Your task to perform on an android device: turn on notifications settings in the gmail app Image 0: 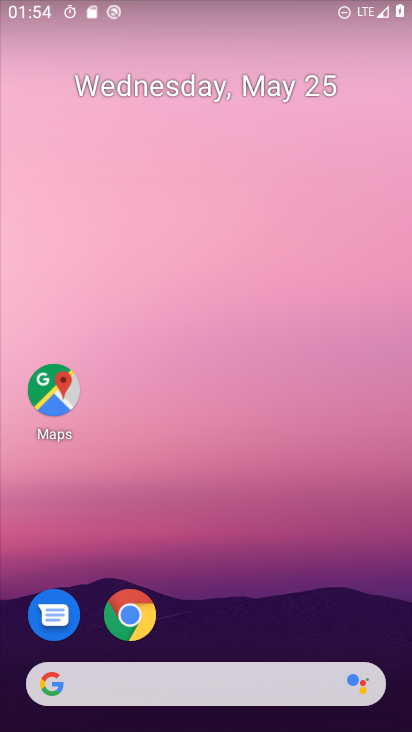
Step 0: press home button
Your task to perform on an android device: turn on notifications settings in the gmail app Image 1: 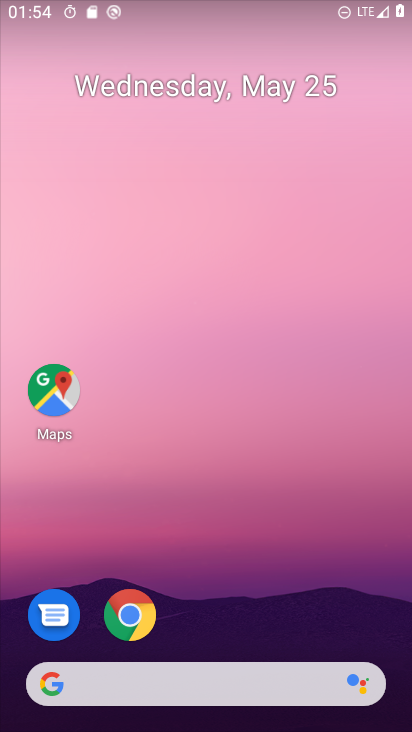
Step 1: drag from (210, 702) to (369, 11)
Your task to perform on an android device: turn on notifications settings in the gmail app Image 2: 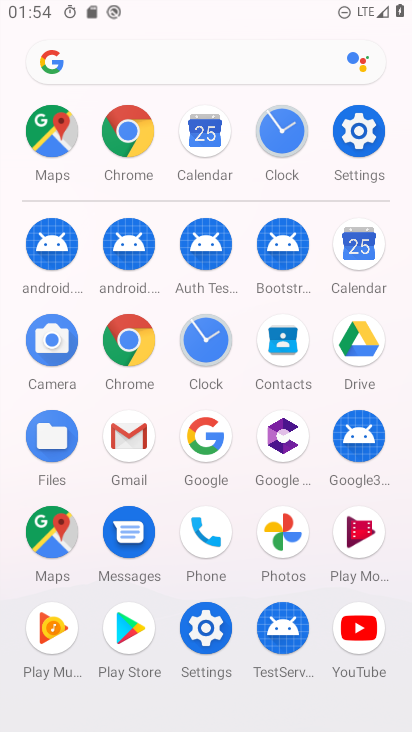
Step 2: click (136, 421)
Your task to perform on an android device: turn on notifications settings in the gmail app Image 3: 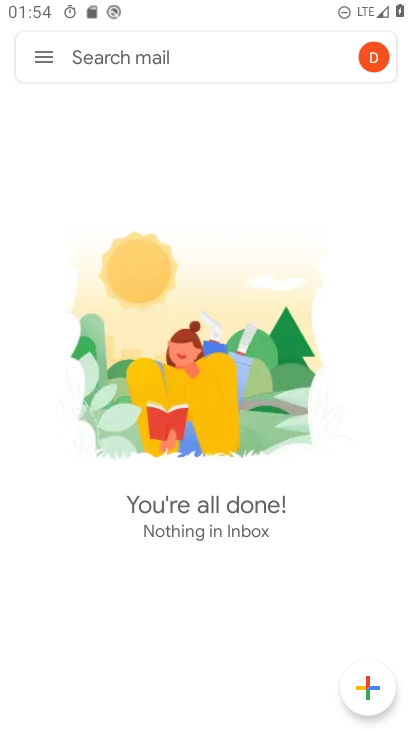
Step 3: click (38, 49)
Your task to perform on an android device: turn on notifications settings in the gmail app Image 4: 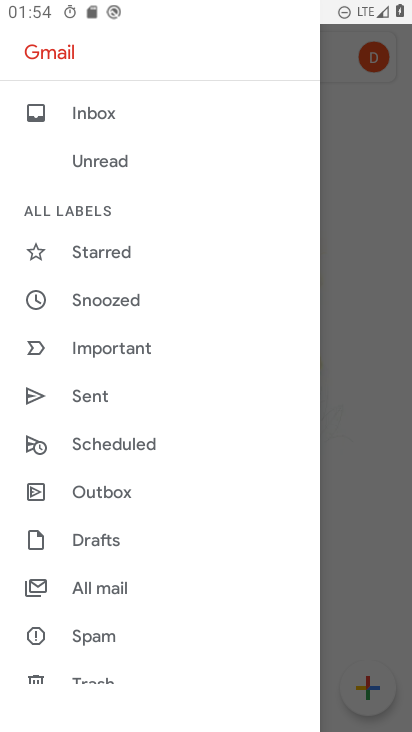
Step 4: drag from (119, 570) to (277, 229)
Your task to perform on an android device: turn on notifications settings in the gmail app Image 5: 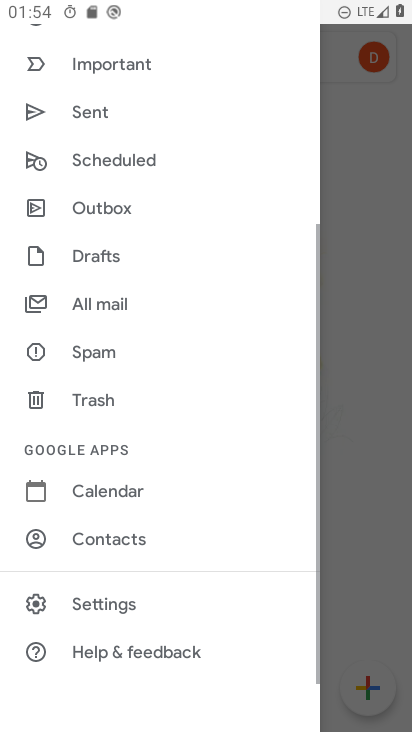
Step 5: click (94, 598)
Your task to perform on an android device: turn on notifications settings in the gmail app Image 6: 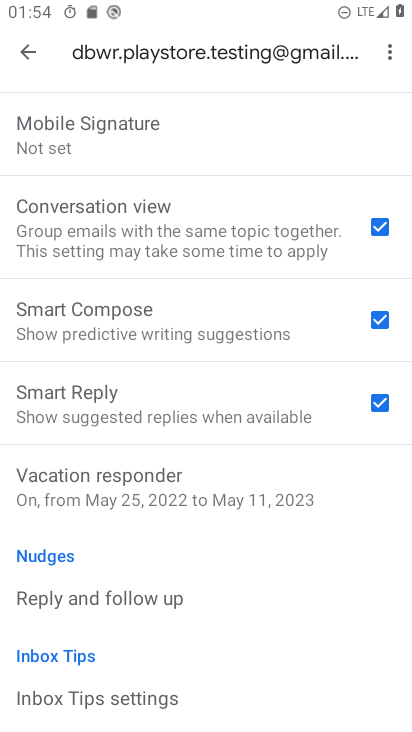
Step 6: drag from (172, 189) to (39, 584)
Your task to perform on an android device: turn on notifications settings in the gmail app Image 7: 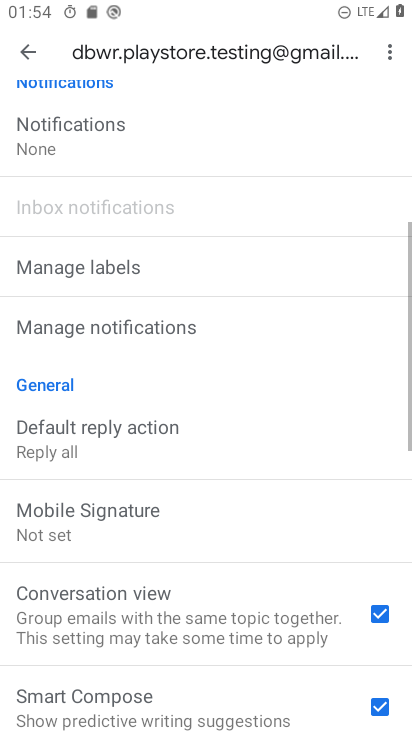
Step 7: click (123, 136)
Your task to perform on an android device: turn on notifications settings in the gmail app Image 8: 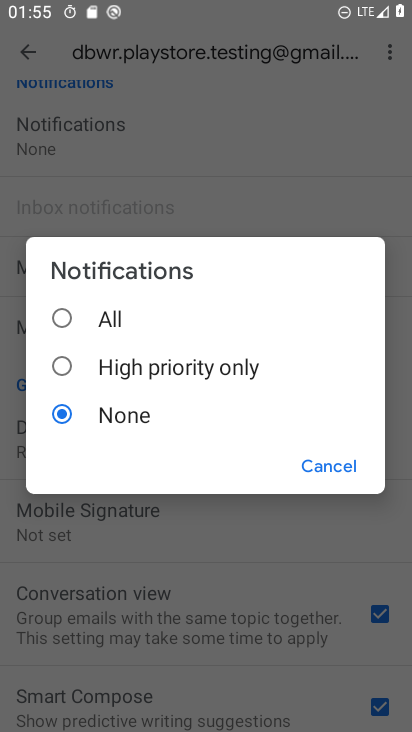
Step 8: click (133, 317)
Your task to perform on an android device: turn on notifications settings in the gmail app Image 9: 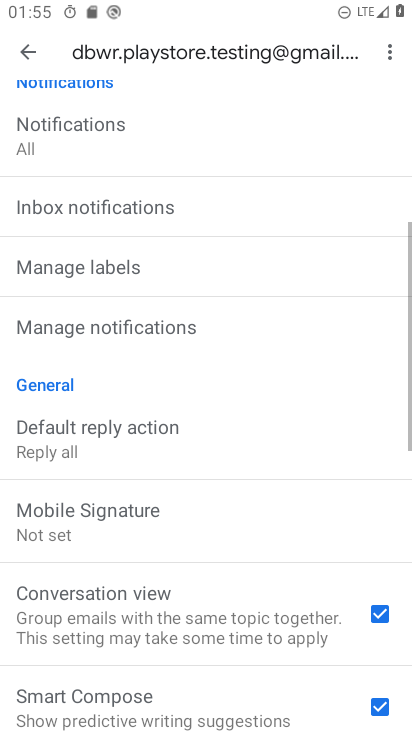
Step 9: task complete